Your task to perform on an android device: Turn off the flashlight Image 0: 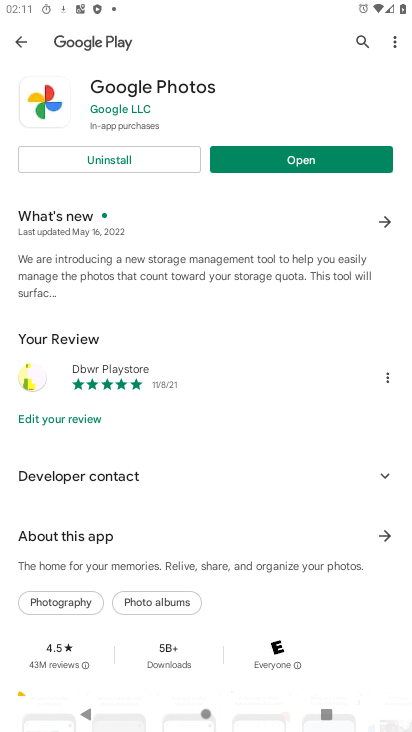
Step 0: press home button
Your task to perform on an android device: Turn off the flashlight Image 1: 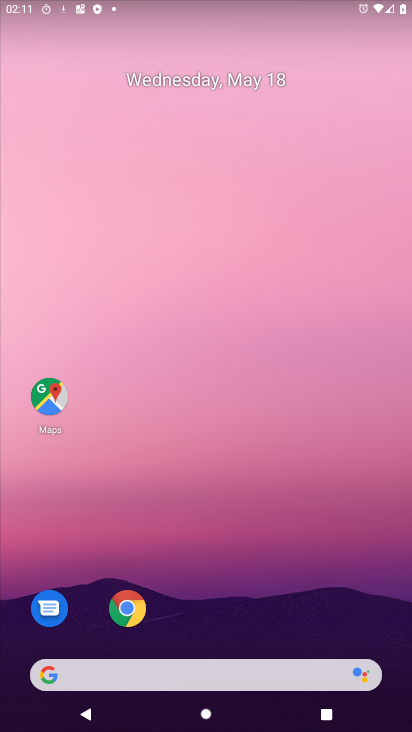
Step 1: drag from (281, 676) to (275, 164)
Your task to perform on an android device: Turn off the flashlight Image 2: 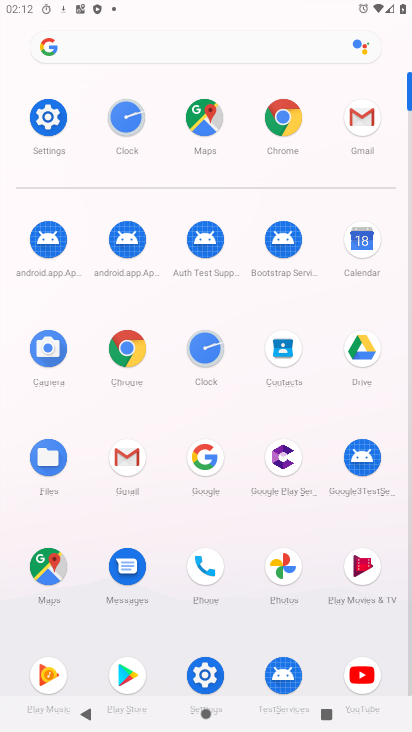
Step 2: click (57, 123)
Your task to perform on an android device: Turn off the flashlight Image 3: 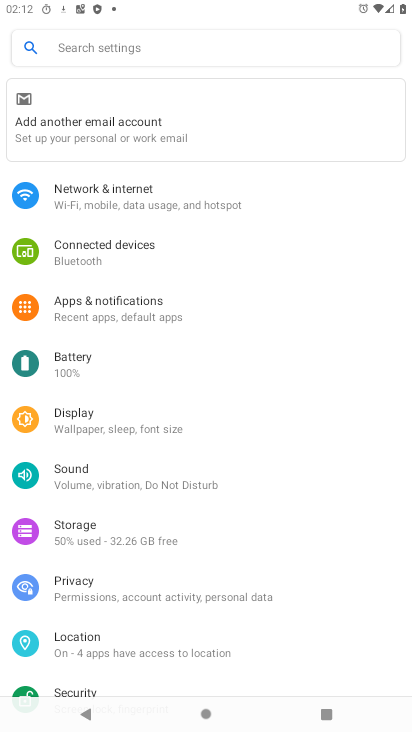
Step 3: click (106, 43)
Your task to perform on an android device: Turn off the flashlight Image 4: 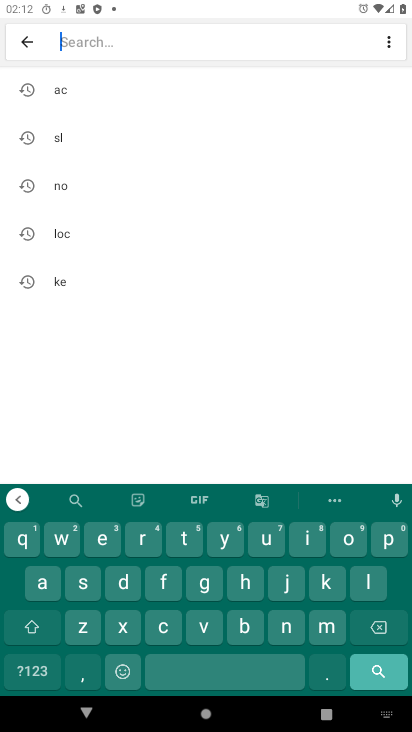
Step 4: click (168, 584)
Your task to perform on an android device: Turn off the flashlight Image 5: 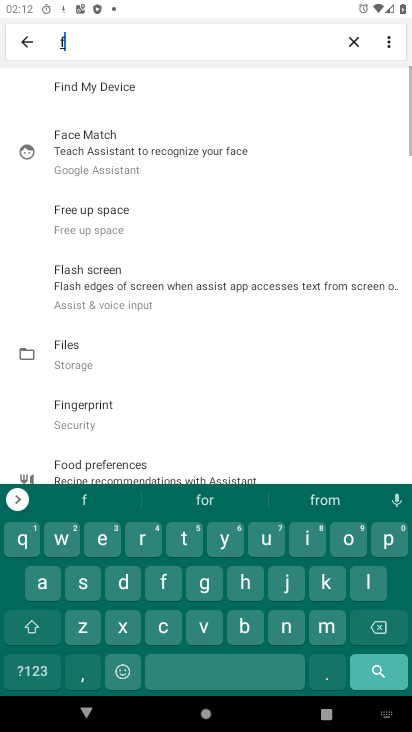
Step 5: click (374, 572)
Your task to perform on an android device: Turn off the flashlight Image 6: 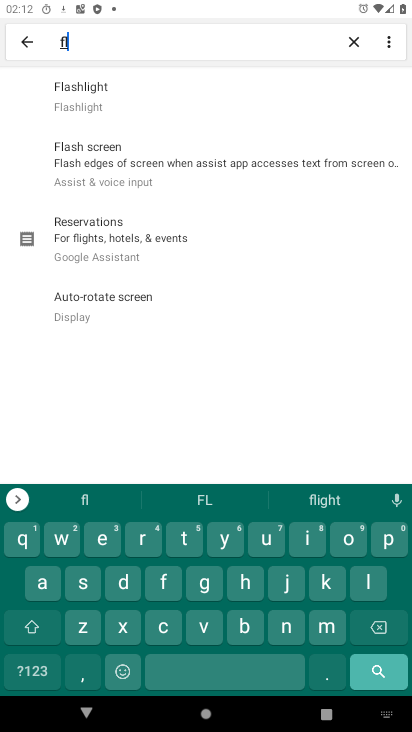
Step 6: click (95, 102)
Your task to perform on an android device: Turn off the flashlight Image 7: 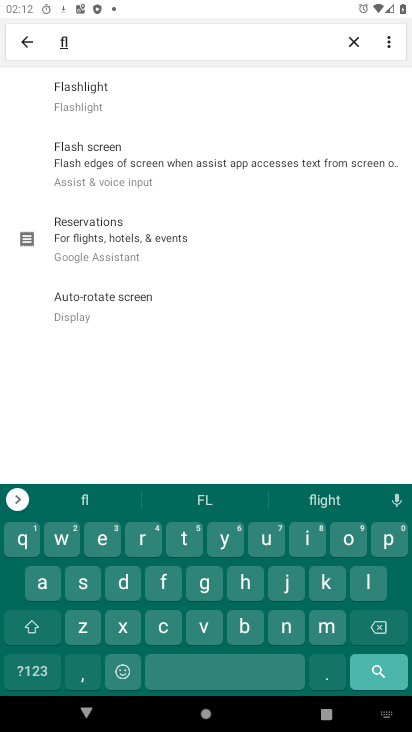
Step 7: task complete